Your task to perform on an android device: Check the news Image 0: 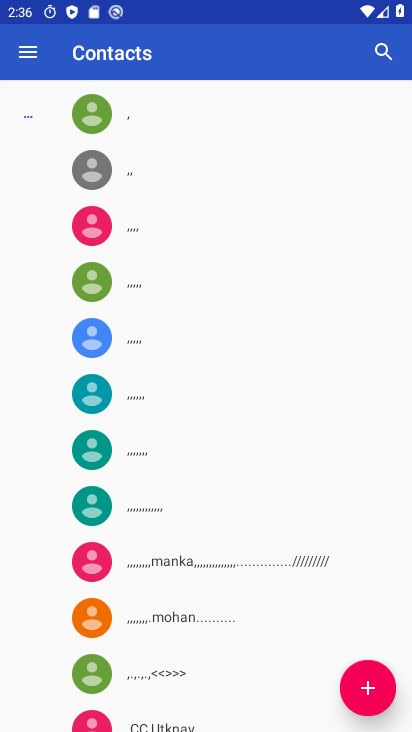
Step 0: press home button
Your task to perform on an android device: Check the news Image 1: 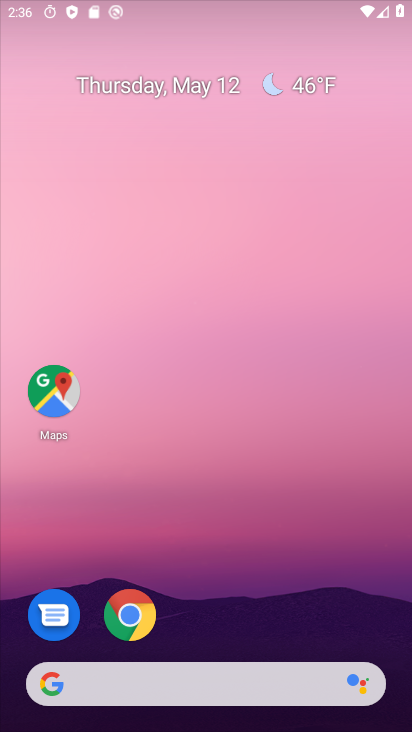
Step 1: drag from (240, 636) to (288, 95)
Your task to perform on an android device: Check the news Image 2: 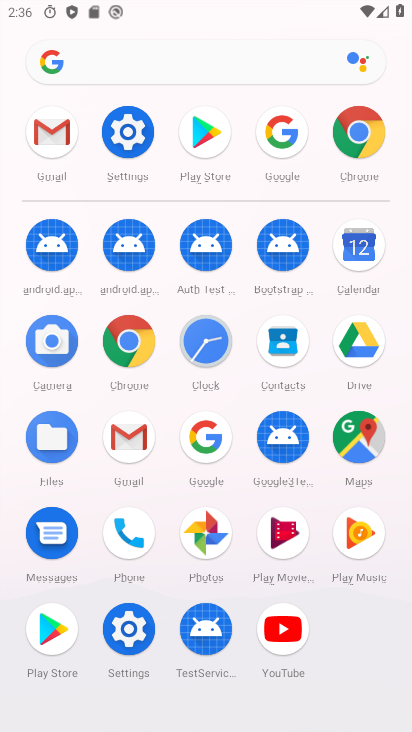
Step 2: click (209, 437)
Your task to perform on an android device: Check the news Image 3: 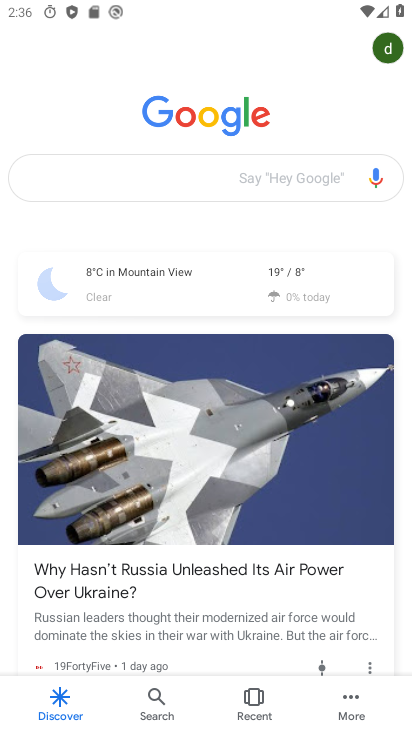
Step 3: click (169, 171)
Your task to perform on an android device: Check the news Image 4: 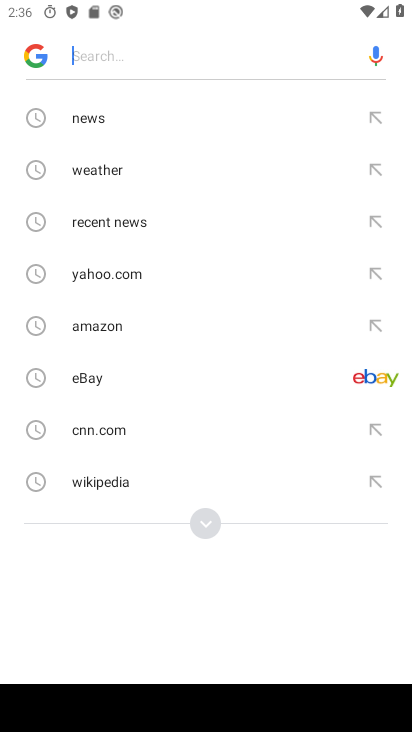
Step 4: click (117, 133)
Your task to perform on an android device: Check the news Image 5: 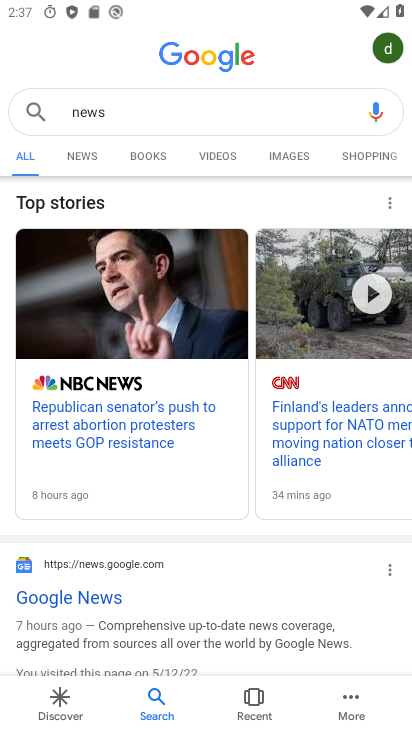
Step 5: task complete